Your task to perform on an android device: open sync settings in chrome Image 0: 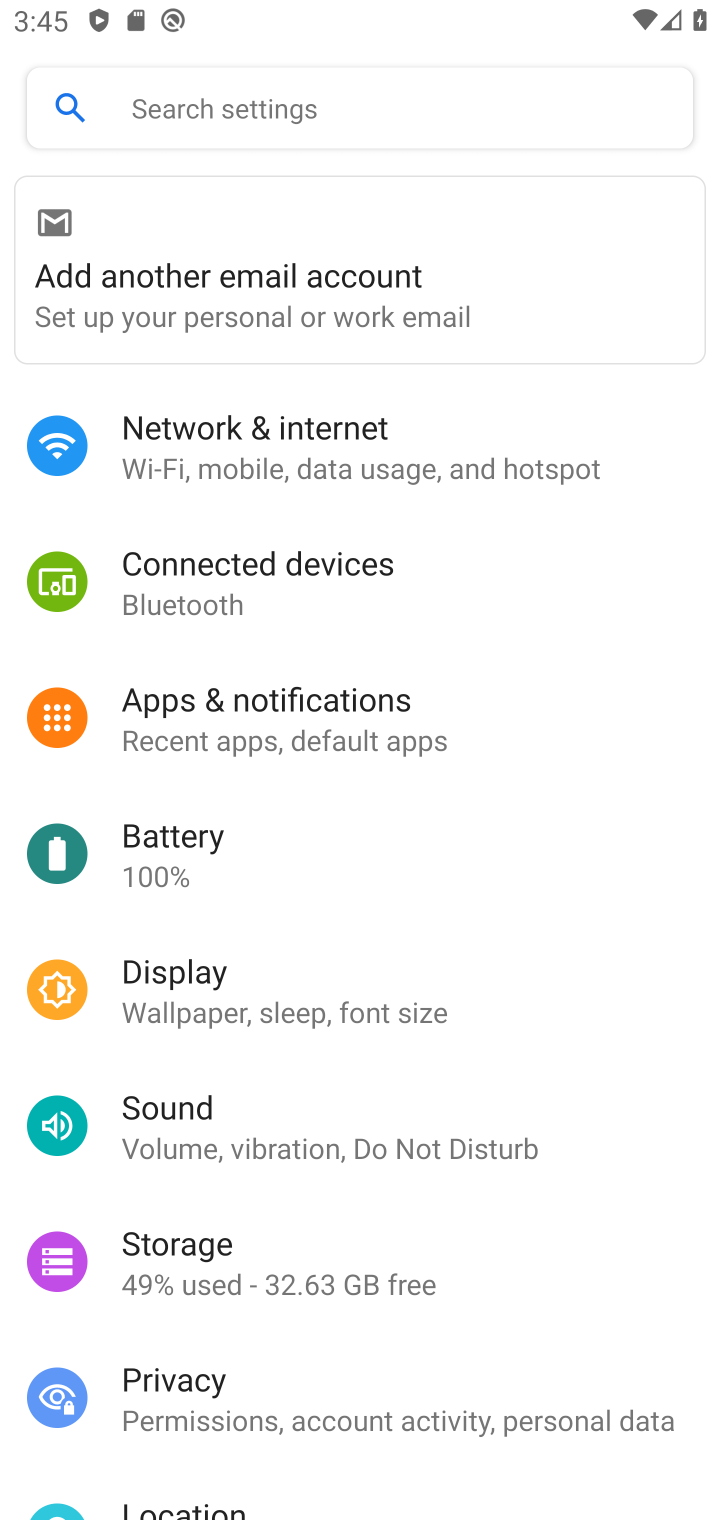
Step 0: press back button
Your task to perform on an android device: open sync settings in chrome Image 1: 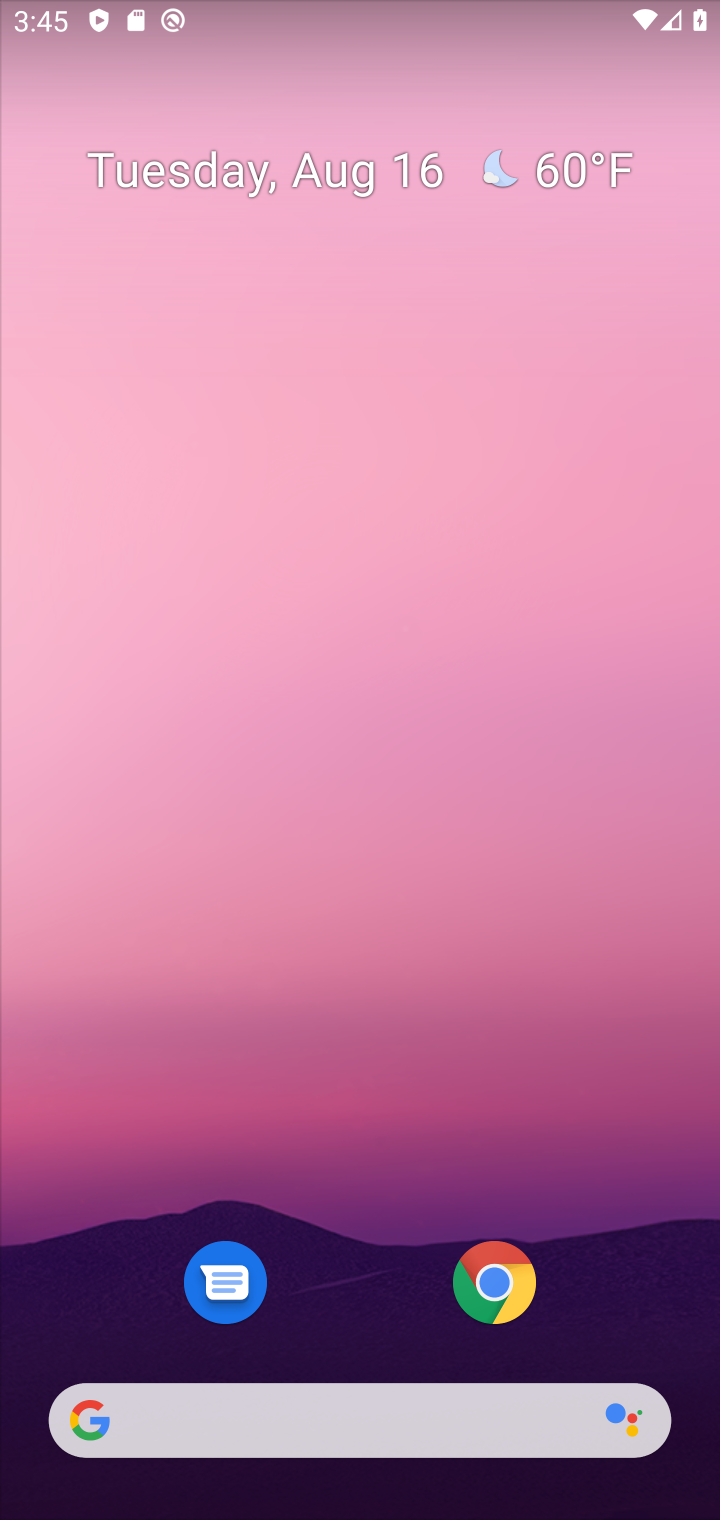
Step 1: click (498, 1258)
Your task to perform on an android device: open sync settings in chrome Image 2: 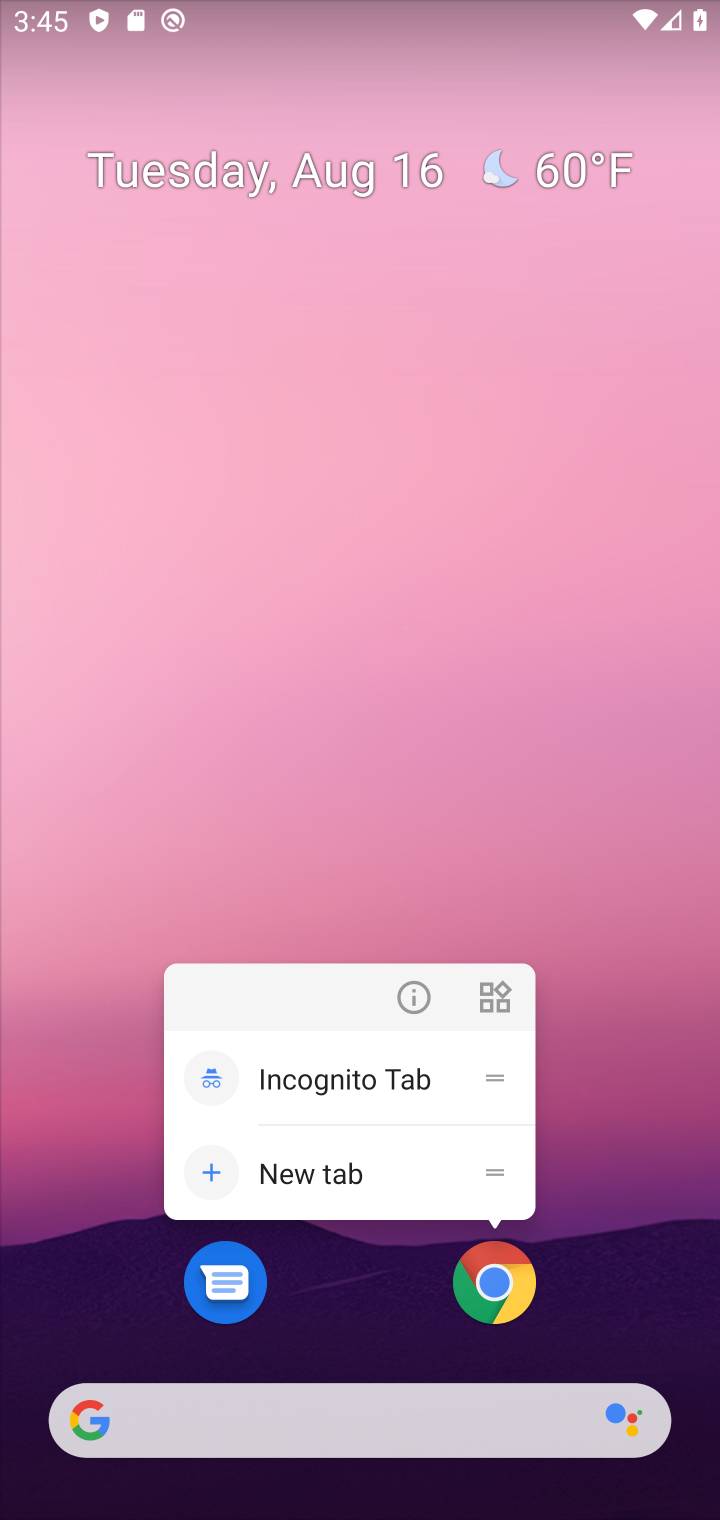
Step 2: click (481, 1295)
Your task to perform on an android device: open sync settings in chrome Image 3: 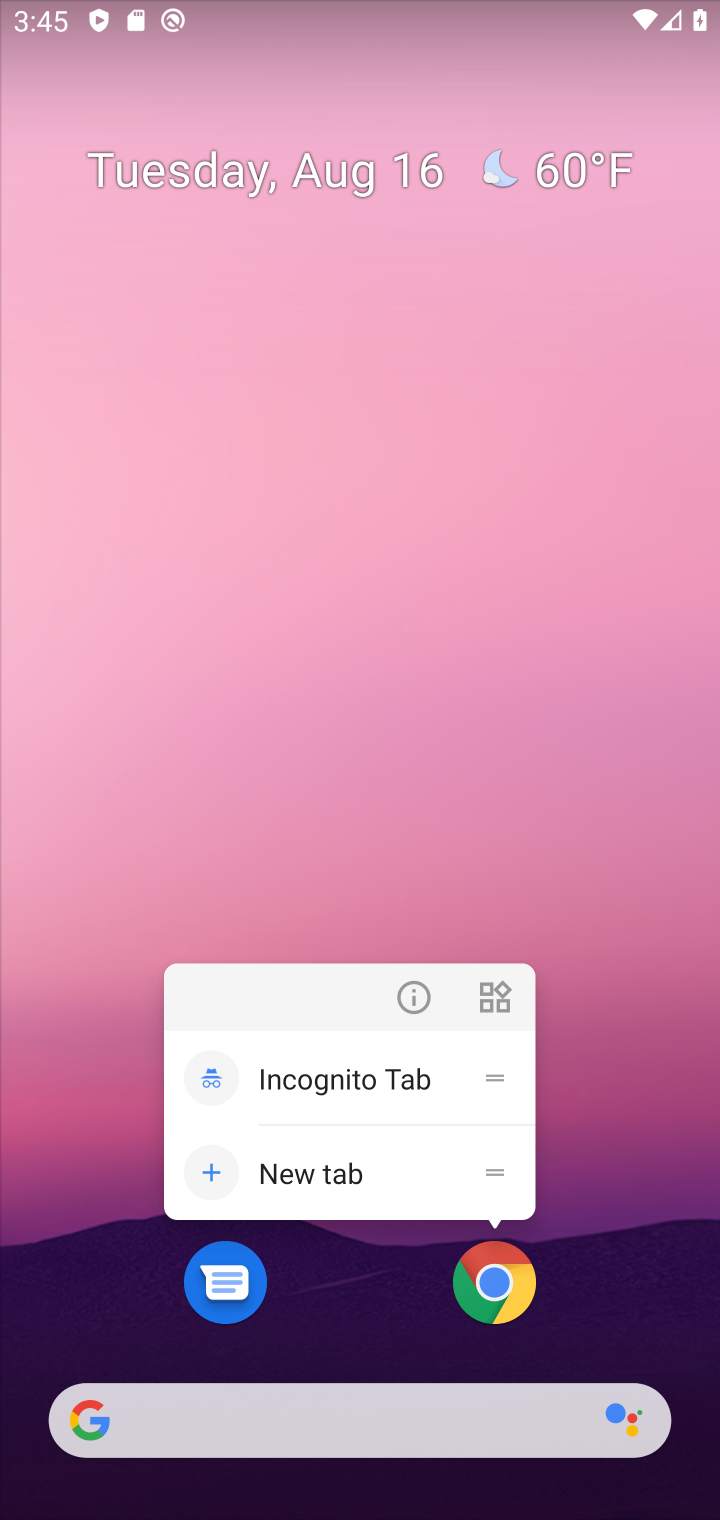
Step 3: click (493, 1285)
Your task to perform on an android device: open sync settings in chrome Image 4: 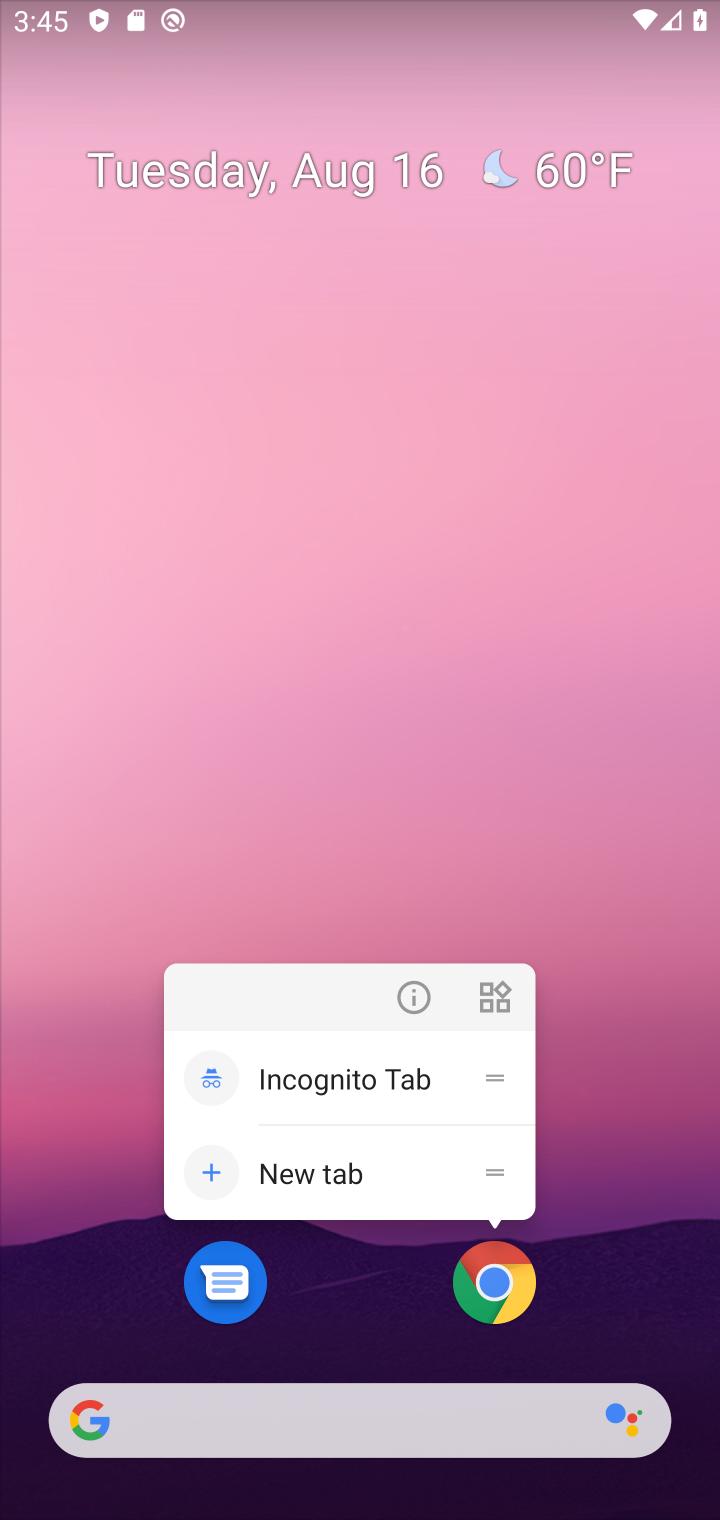
Step 4: click (495, 1277)
Your task to perform on an android device: open sync settings in chrome Image 5: 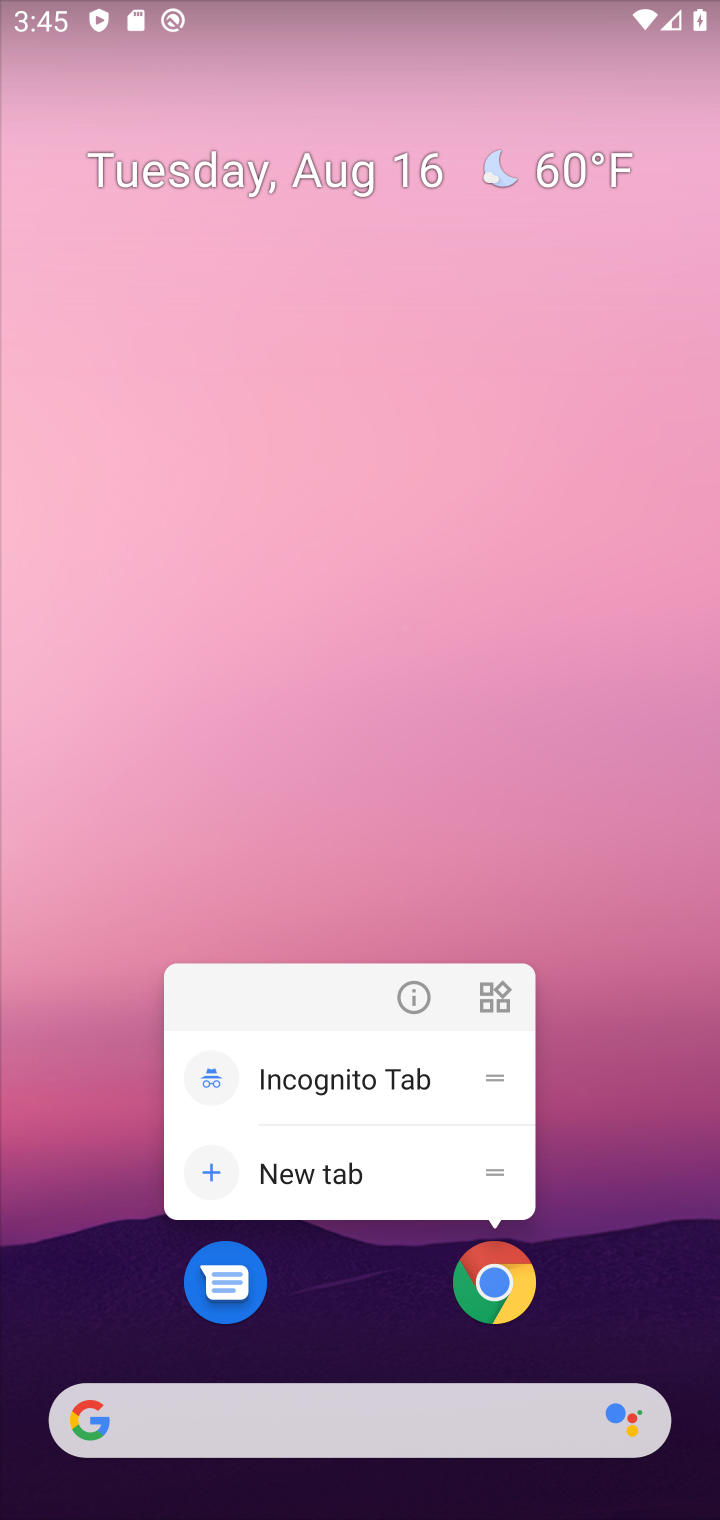
Step 5: click (504, 1284)
Your task to perform on an android device: open sync settings in chrome Image 6: 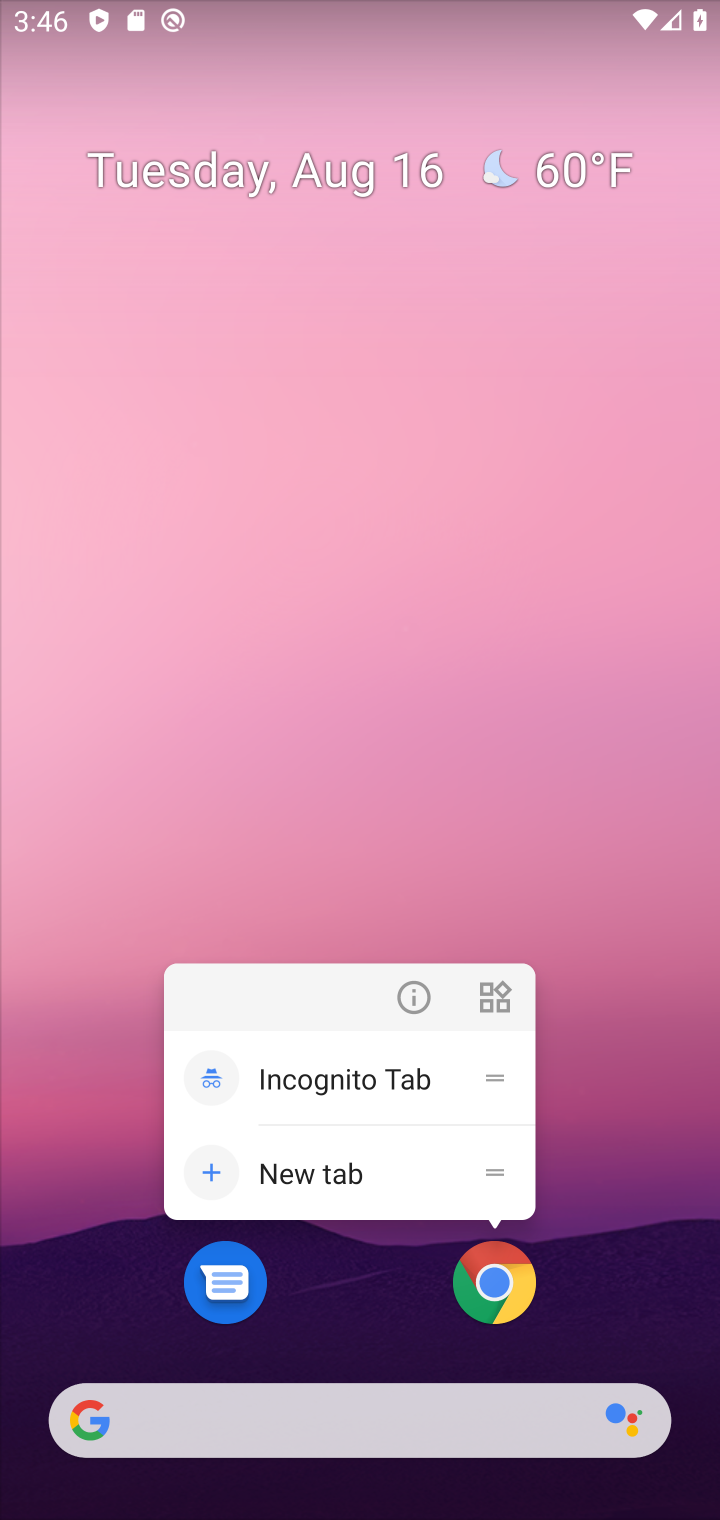
Step 6: click (502, 1277)
Your task to perform on an android device: open sync settings in chrome Image 7: 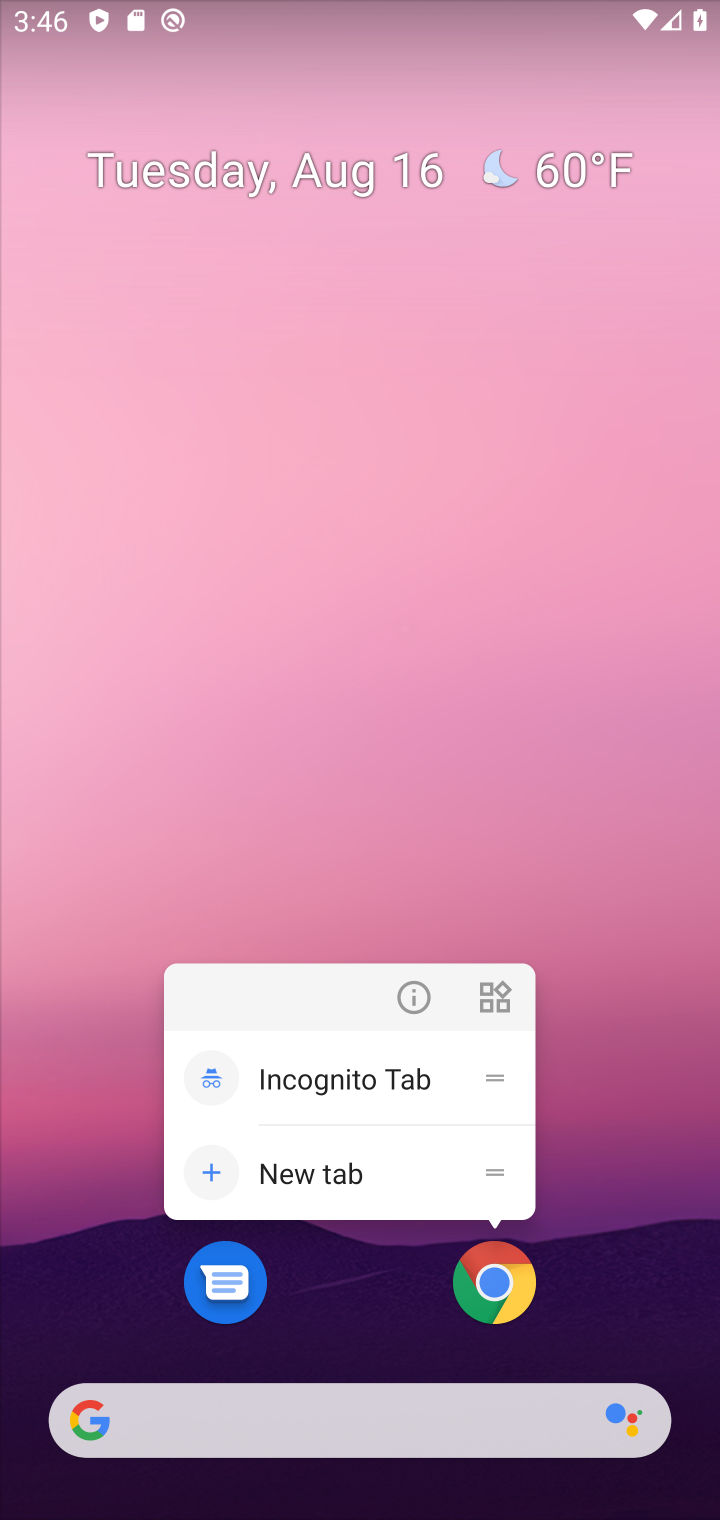
Step 7: click (502, 1277)
Your task to perform on an android device: open sync settings in chrome Image 8: 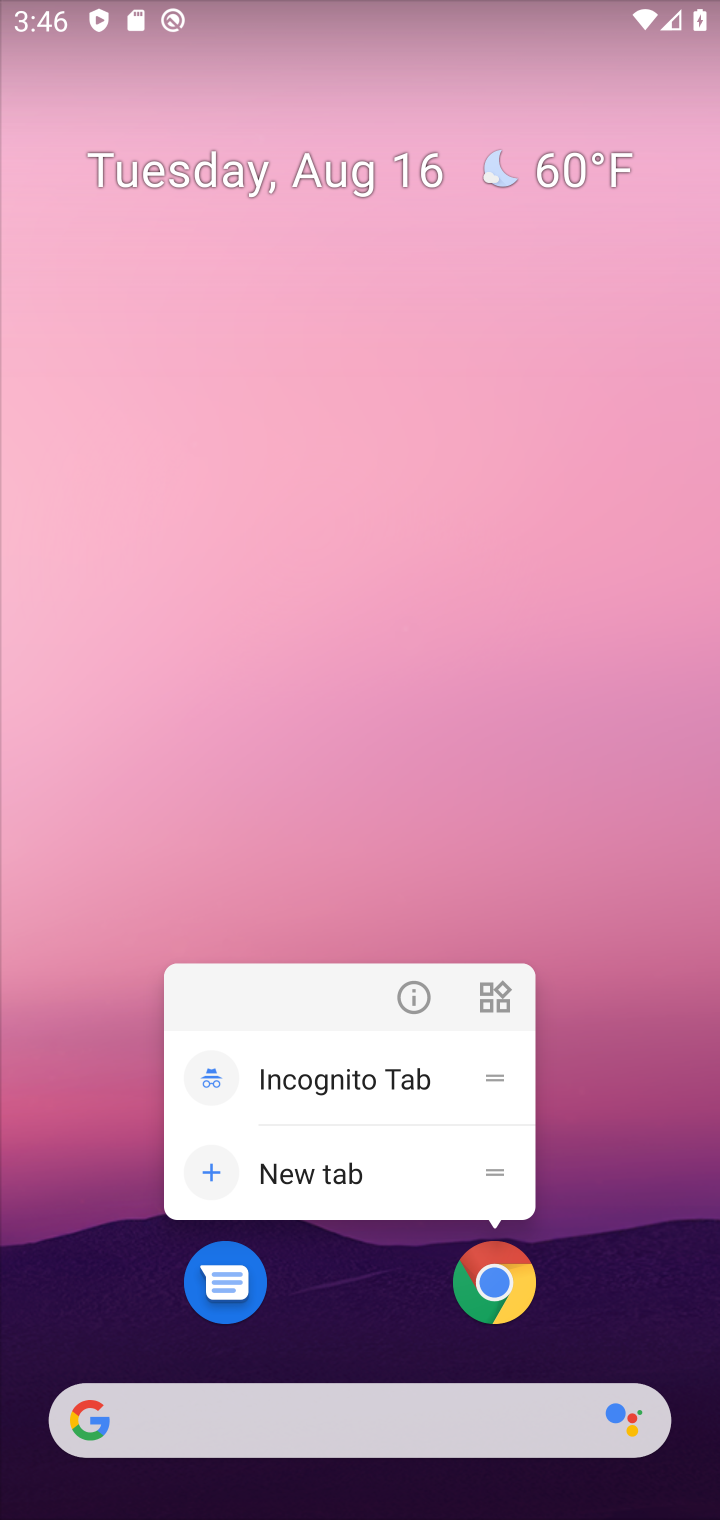
Step 8: click (502, 1277)
Your task to perform on an android device: open sync settings in chrome Image 9: 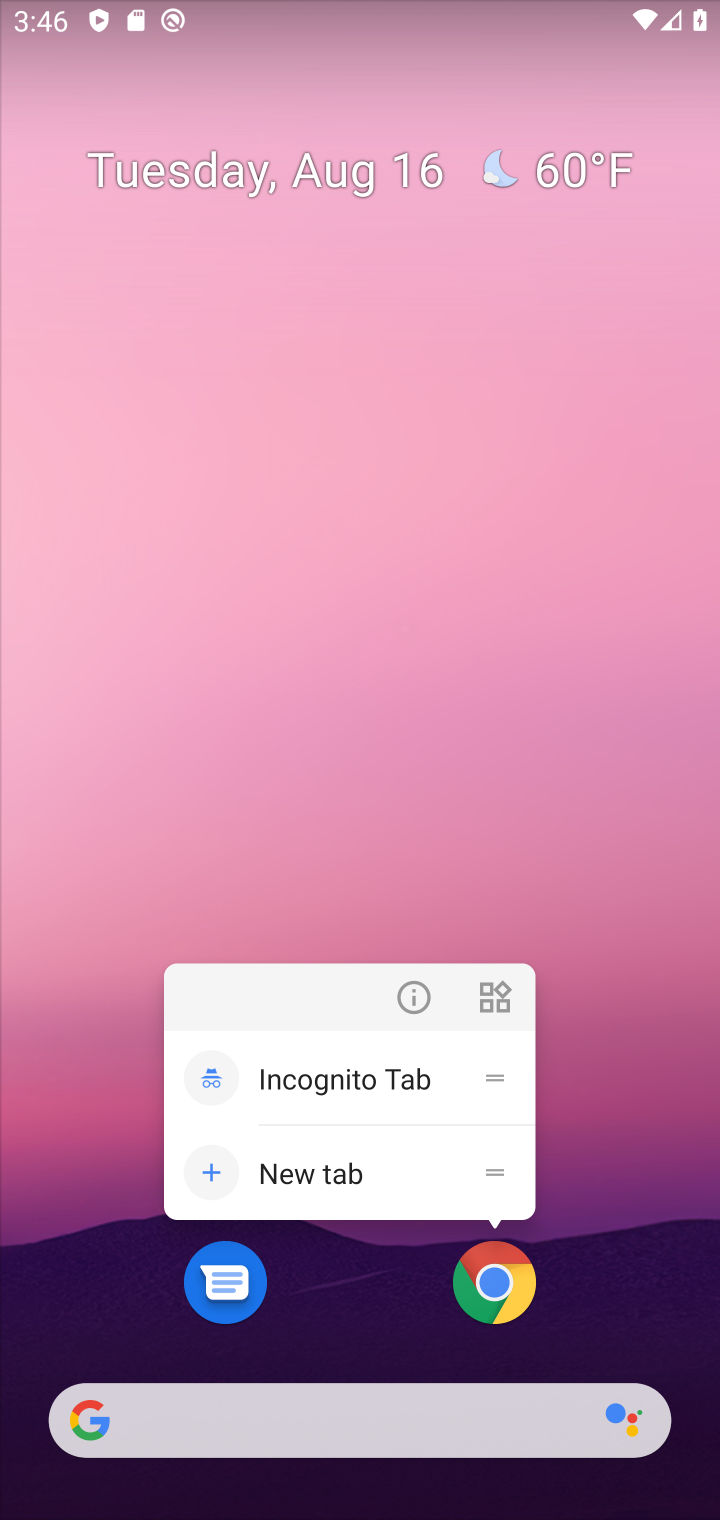
Step 9: click (490, 1290)
Your task to perform on an android device: open sync settings in chrome Image 10: 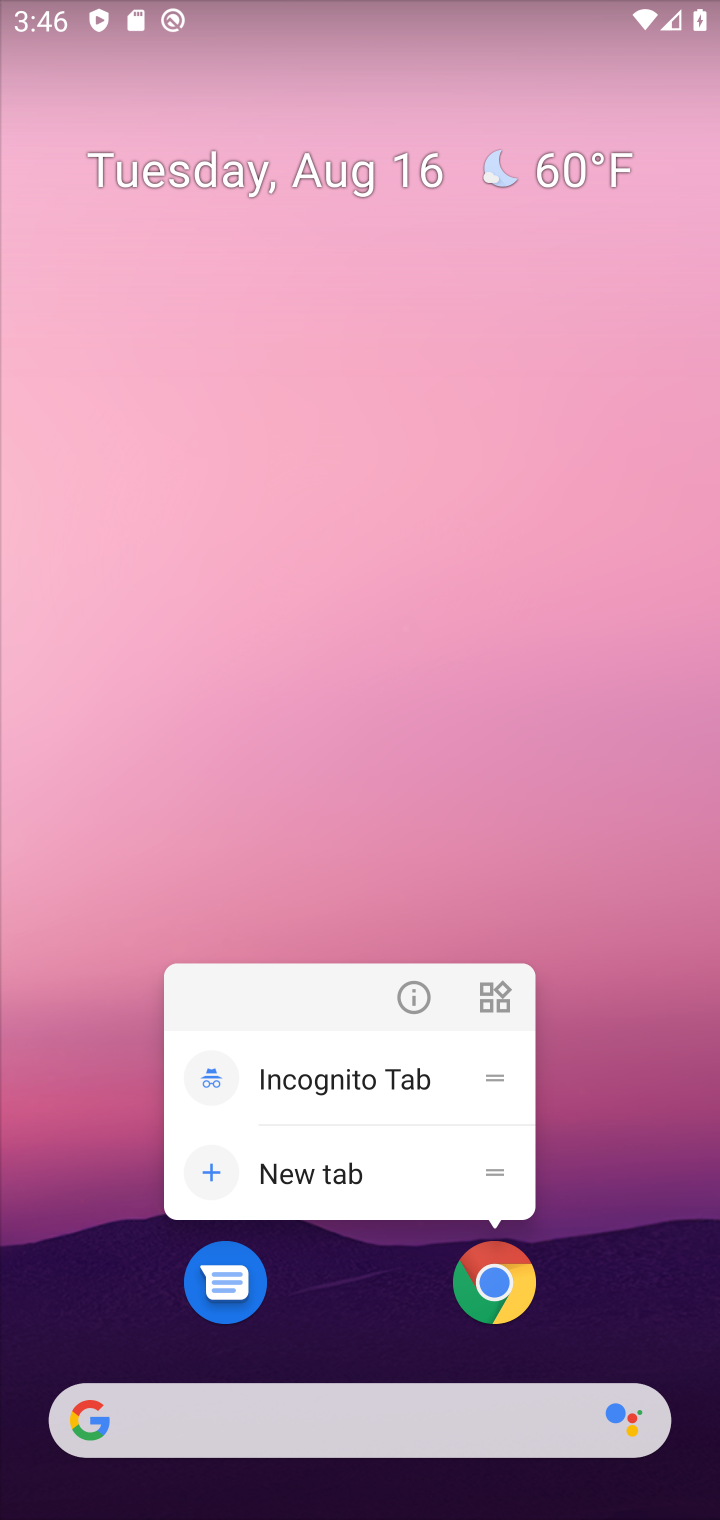
Step 10: click (493, 1293)
Your task to perform on an android device: open sync settings in chrome Image 11: 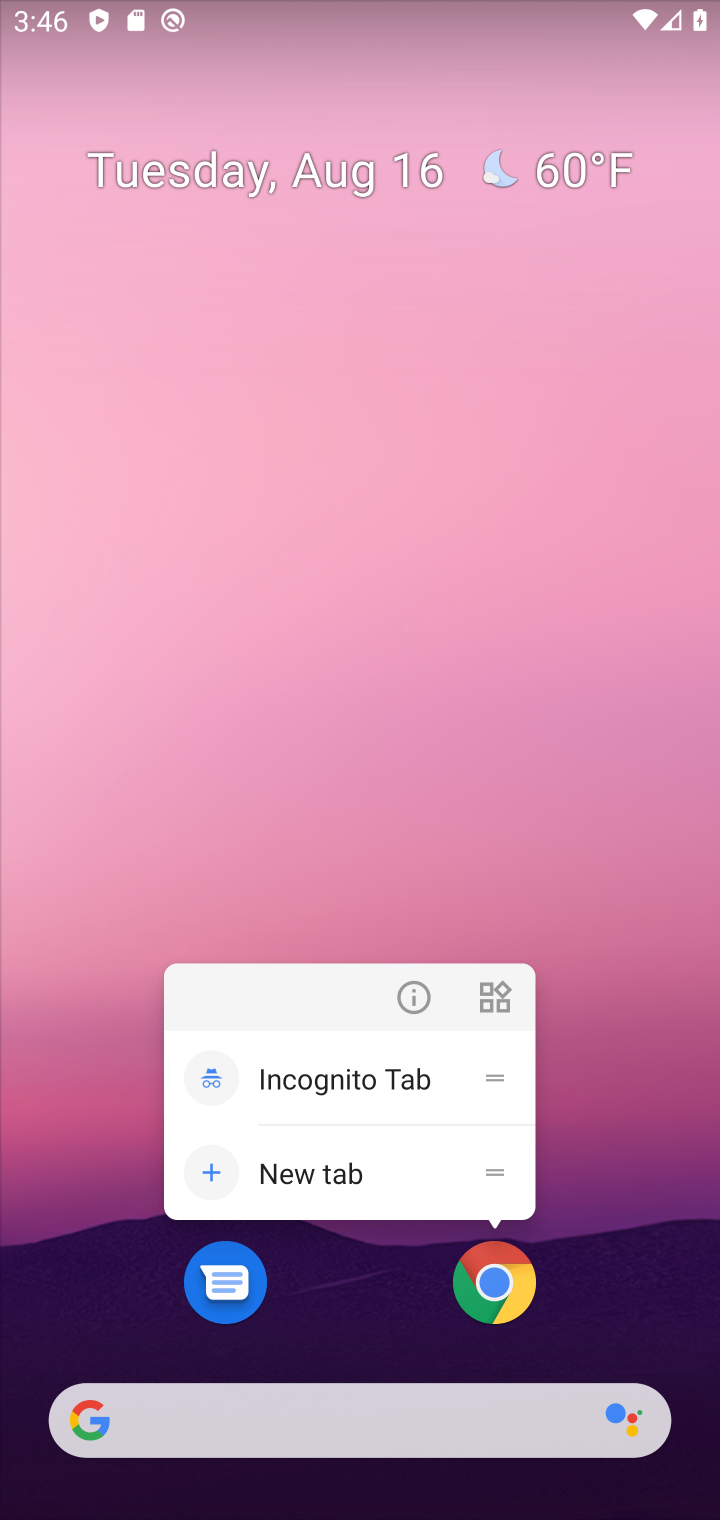
Step 11: click (495, 1295)
Your task to perform on an android device: open sync settings in chrome Image 12: 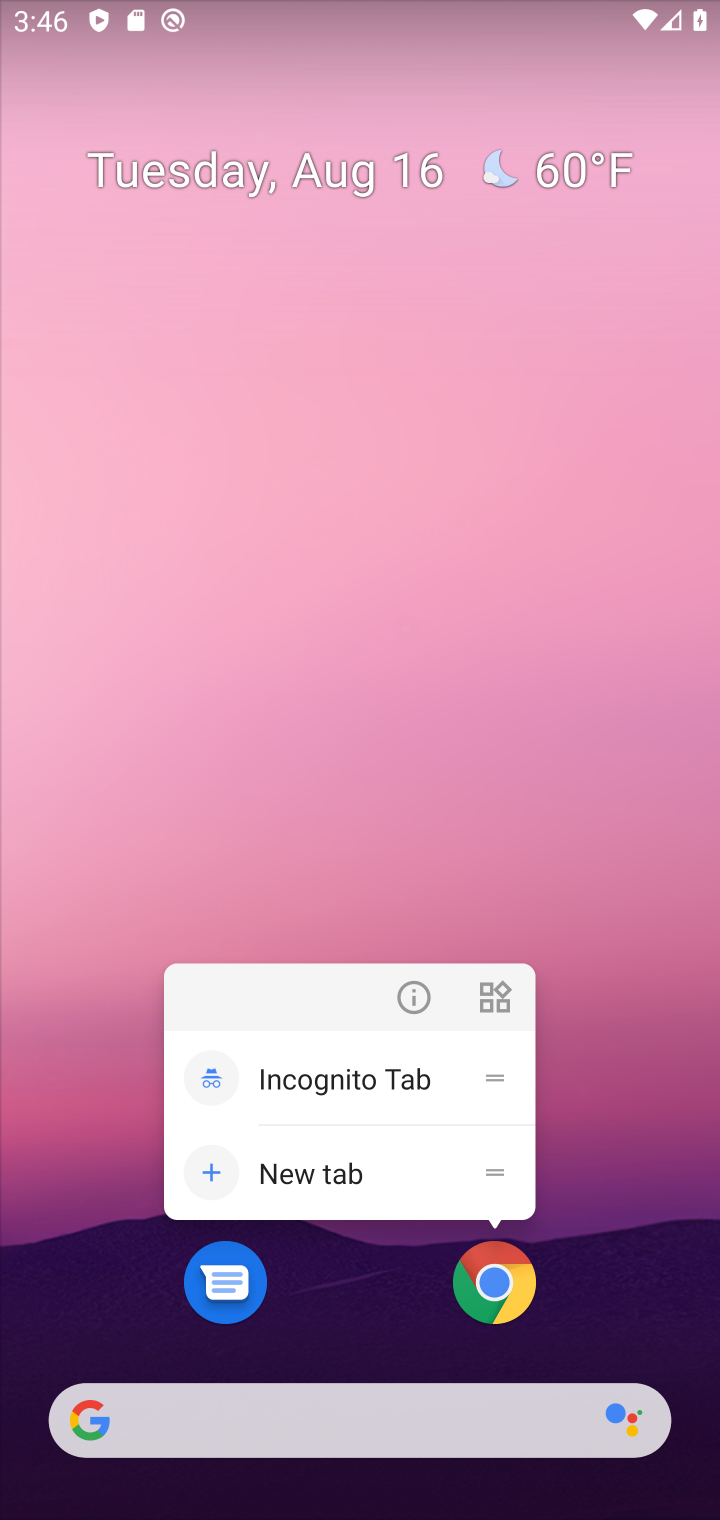
Step 12: click (505, 1283)
Your task to perform on an android device: open sync settings in chrome Image 13: 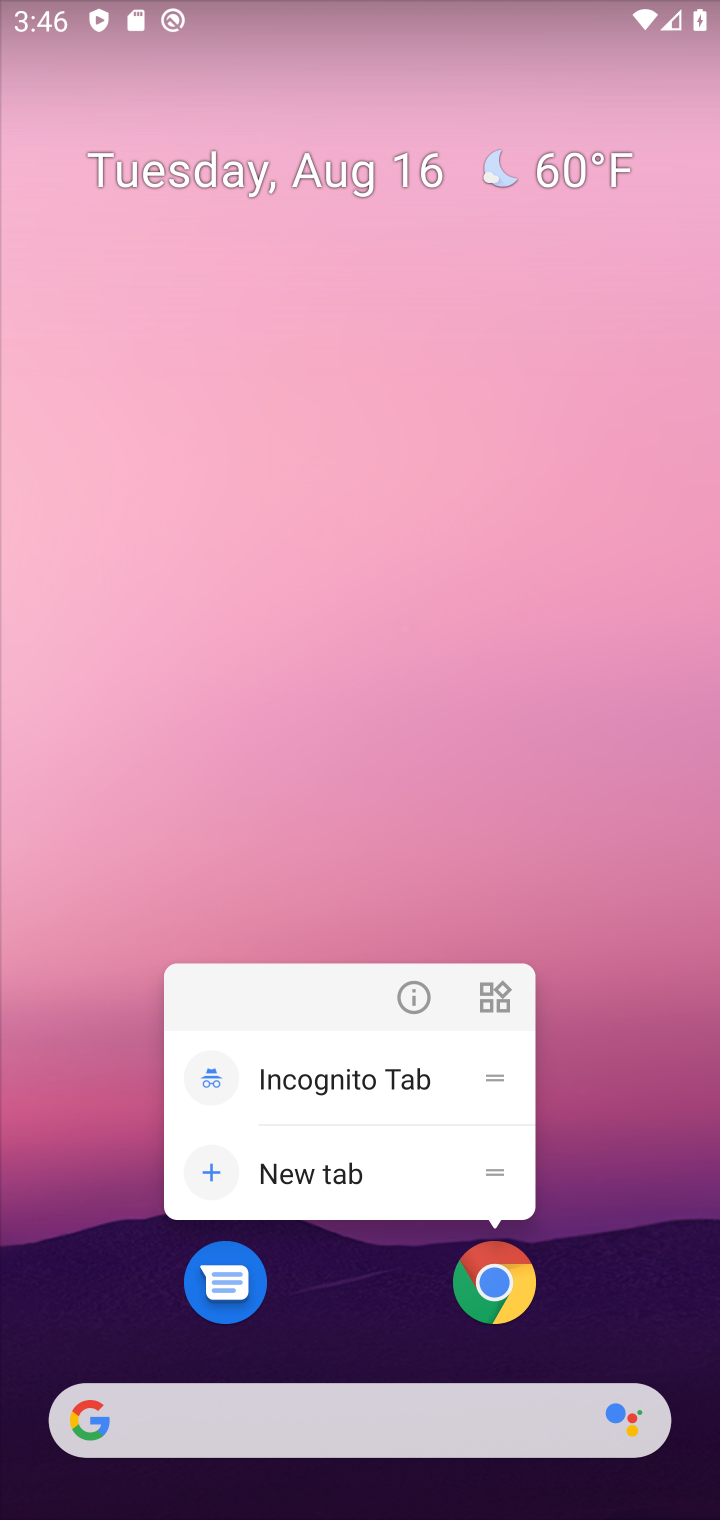
Step 13: click (508, 1277)
Your task to perform on an android device: open sync settings in chrome Image 14: 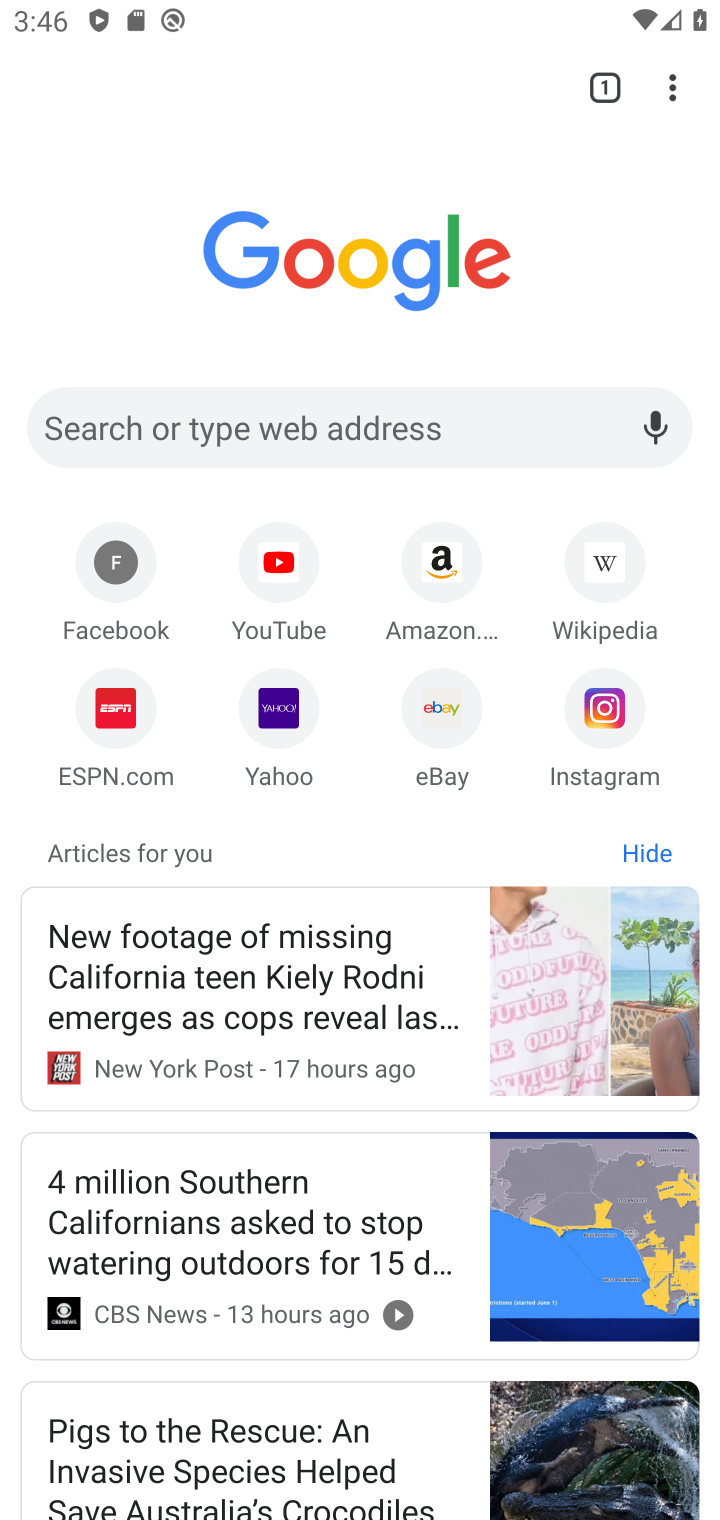
Step 14: drag from (661, 95) to (395, 728)
Your task to perform on an android device: open sync settings in chrome Image 15: 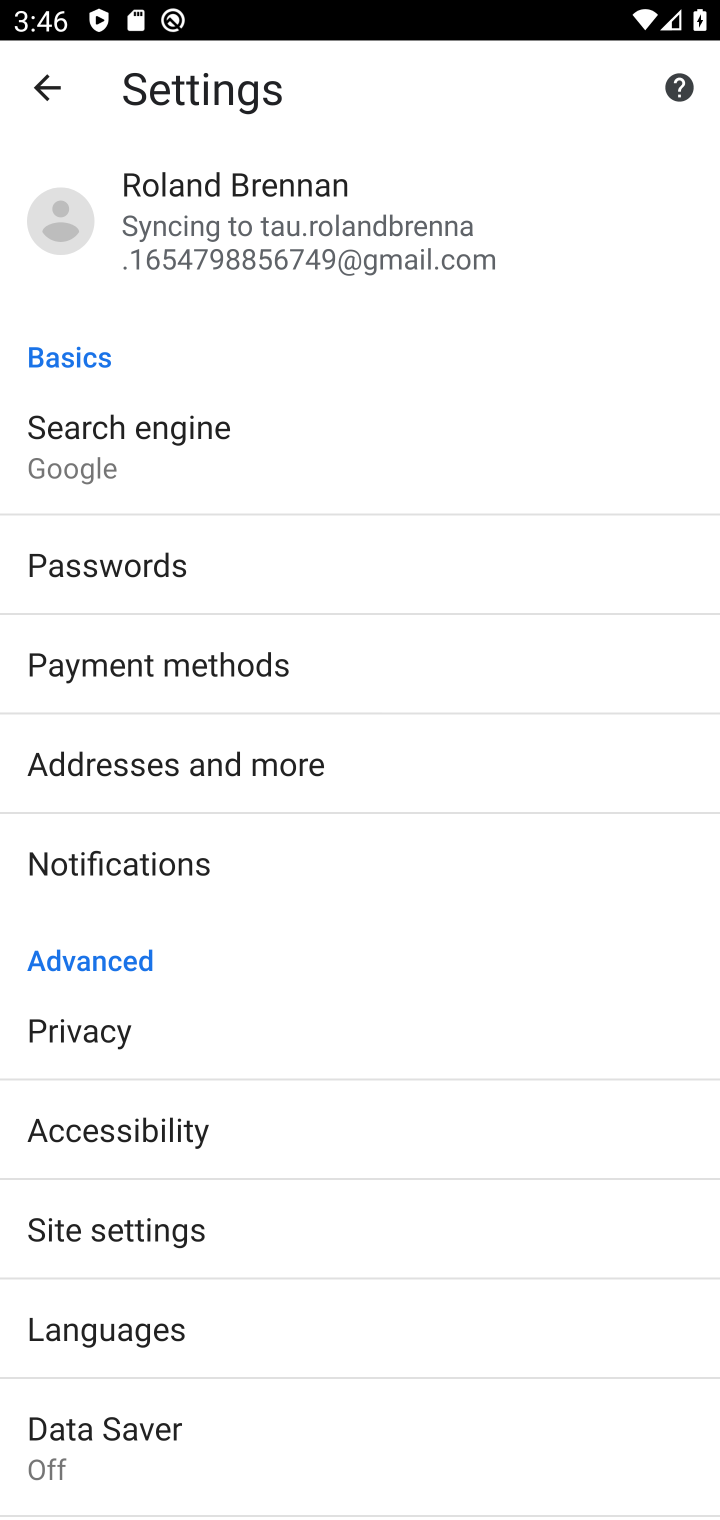
Step 15: click (215, 216)
Your task to perform on an android device: open sync settings in chrome Image 16: 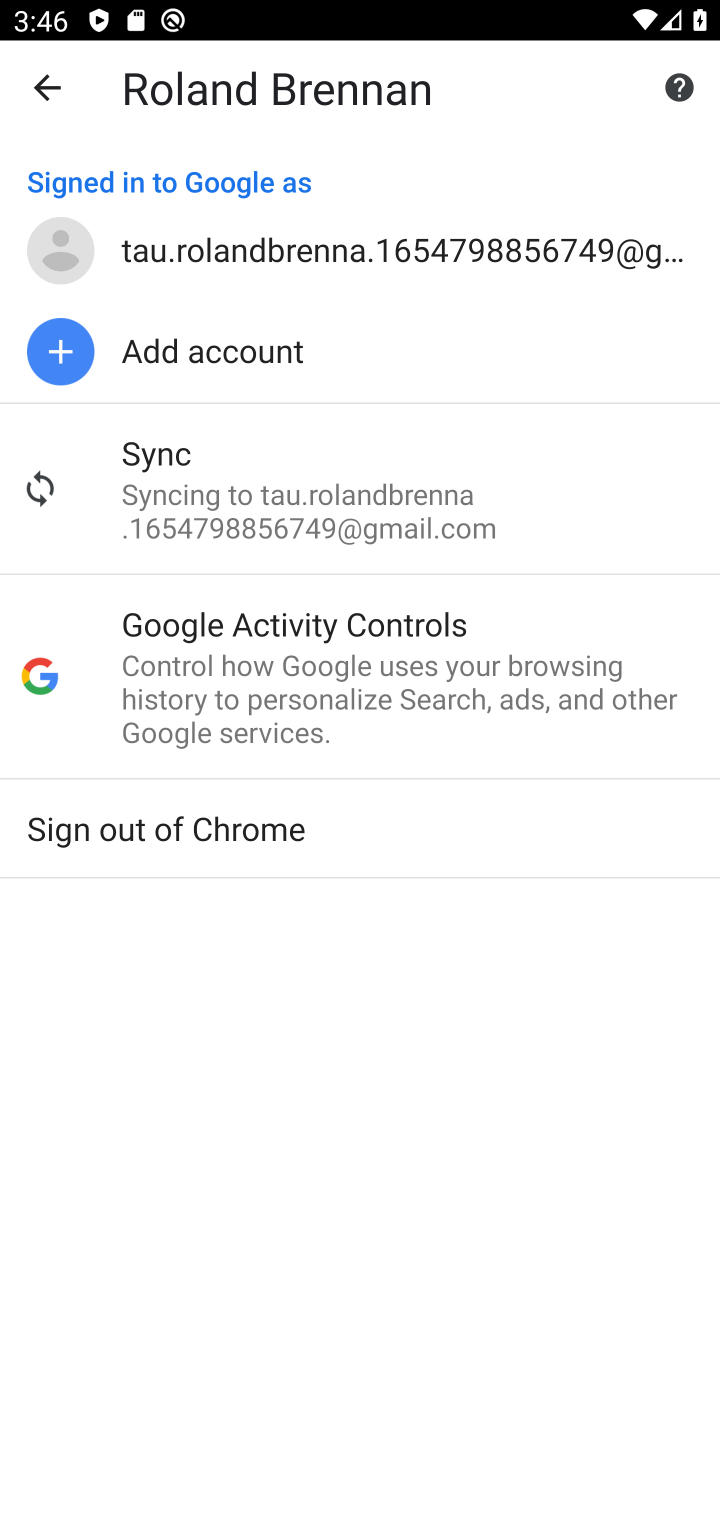
Step 16: task complete